Your task to perform on an android device: add a label to a message in the gmail app Image 0: 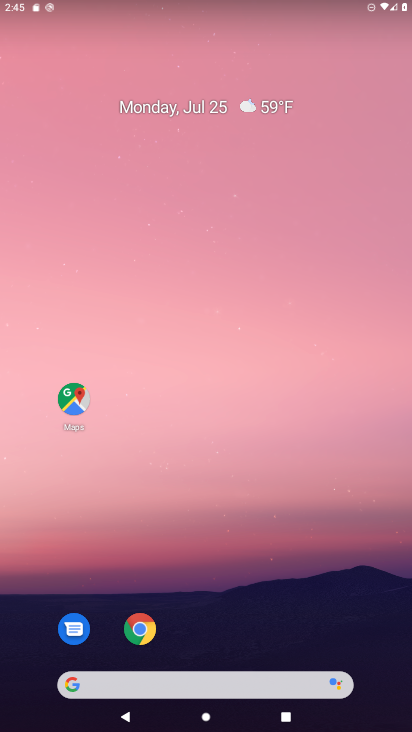
Step 0: drag from (393, 623) to (255, 179)
Your task to perform on an android device: add a label to a message in the gmail app Image 1: 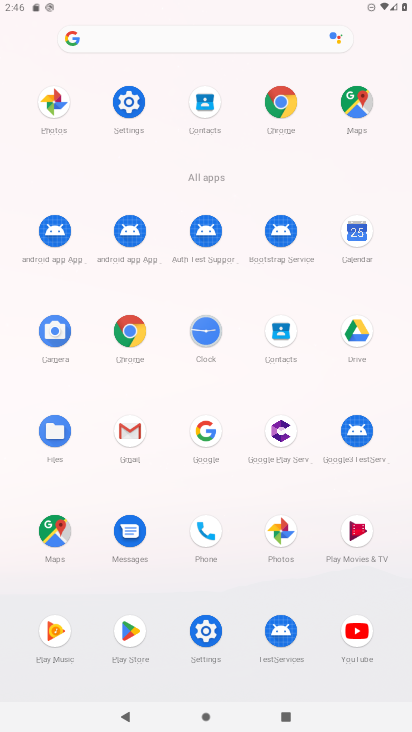
Step 1: click (123, 426)
Your task to perform on an android device: add a label to a message in the gmail app Image 2: 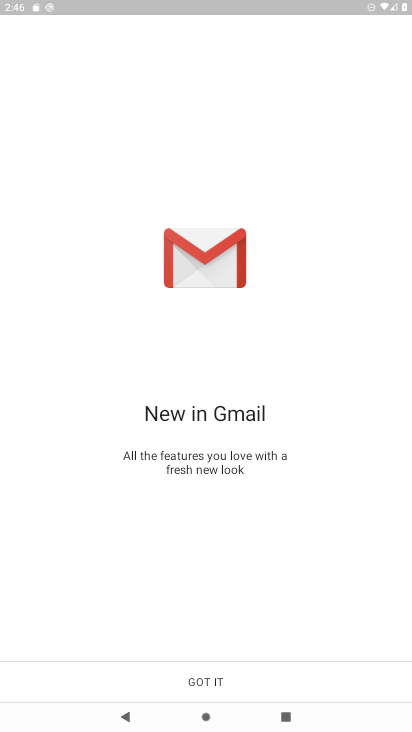
Step 2: click (223, 677)
Your task to perform on an android device: add a label to a message in the gmail app Image 3: 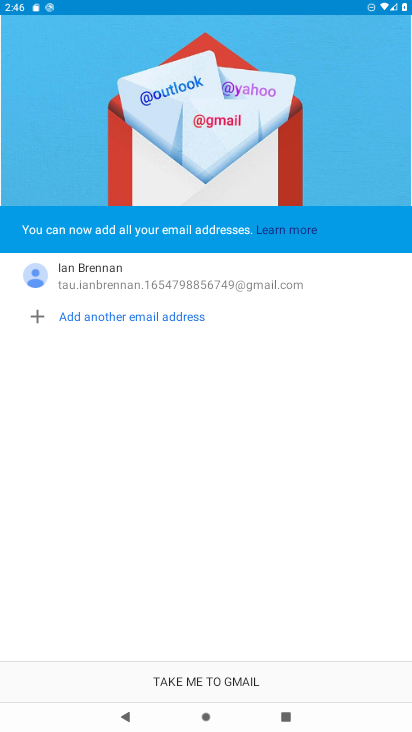
Step 3: click (220, 674)
Your task to perform on an android device: add a label to a message in the gmail app Image 4: 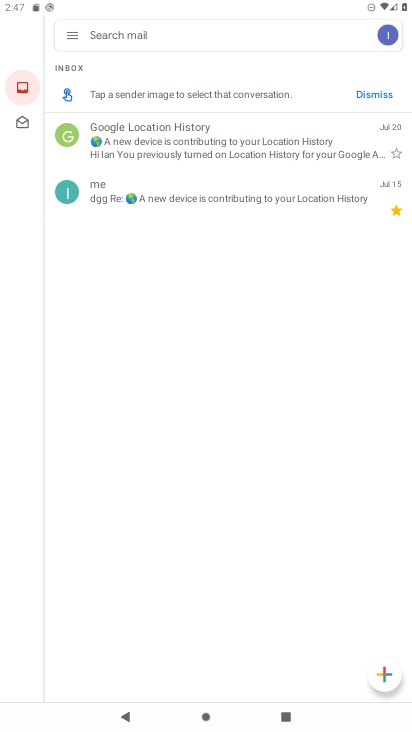
Step 4: click (220, 153)
Your task to perform on an android device: add a label to a message in the gmail app Image 5: 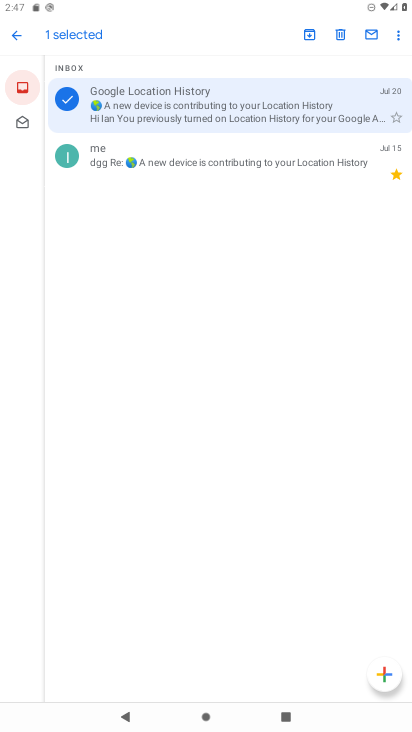
Step 5: click (391, 37)
Your task to perform on an android device: add a label to a message in the gmail app Image 6: 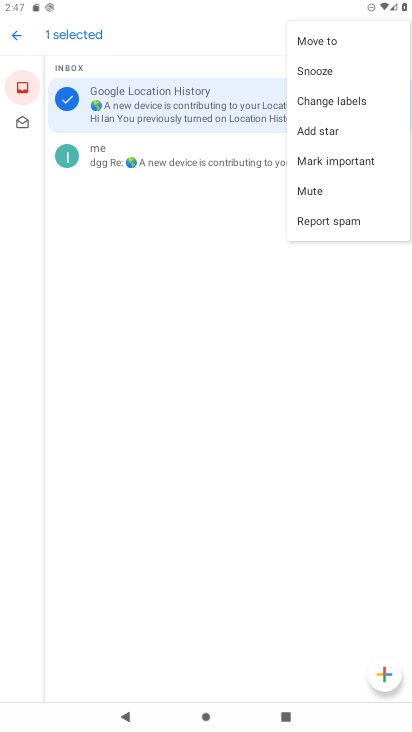
Step 6: click (362, 104)
Your task to perform on an android device: add a label to a message in the gmail app Image 7: 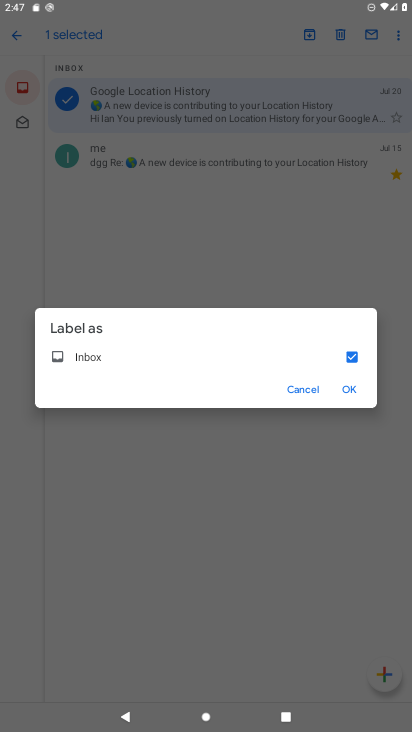
Step 7: click (347, 387)
Your task to perform on an android device: add a label to a message in the gmail app Image 8: 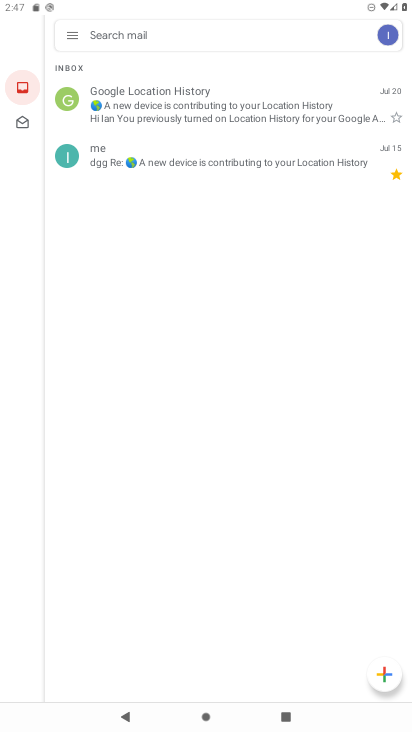
Step 8: task complete